Your task to perform on an android device: toggle notifications settings in the gmail app Image 0: 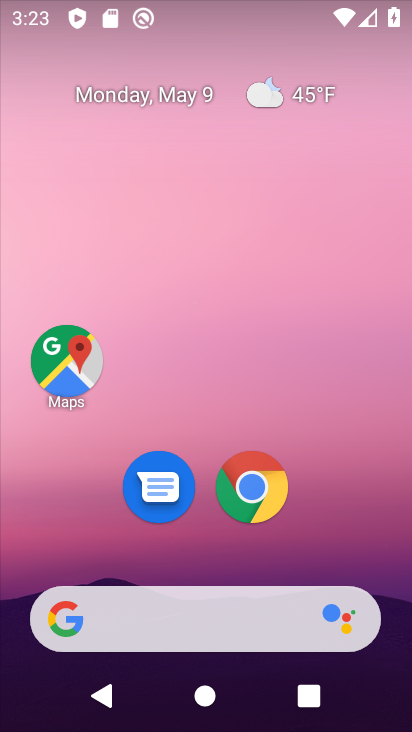
Step 0: drag from (158, 590) to (264, 99)
Your task to perform on an android device: toggle notifications settings in the gmail app Image 1: 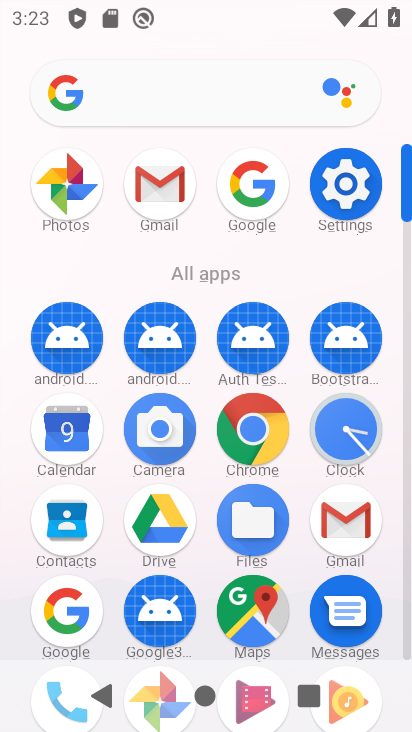
Step 1: click (340, 187)
Your task to perform on an android device: toggle notifications settings in the gmail app Image 2: 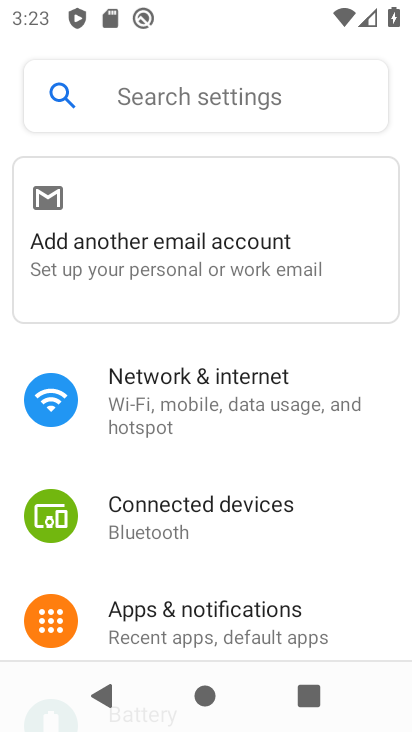
Step 2: click (205, 615)
Your task to perform on an android device: toggle notifications settings in the gmail app Image 3: 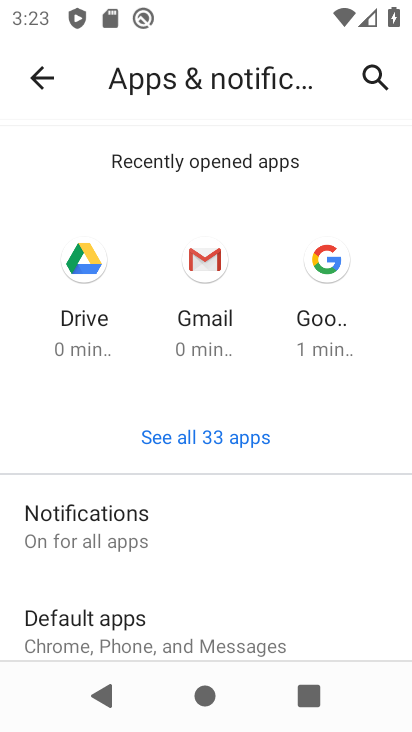
Step 3: press home button
Your task to perform on an android device: toggle notifications settings in the gmail app Image 4: 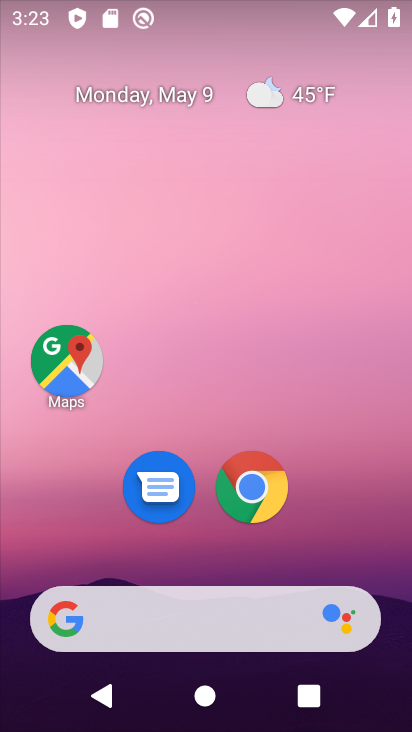
Step 4: drag from (160, 574) to (175, 165)
Your task to perform on an android device: toggle notifications settings in the gmail app Image 5: 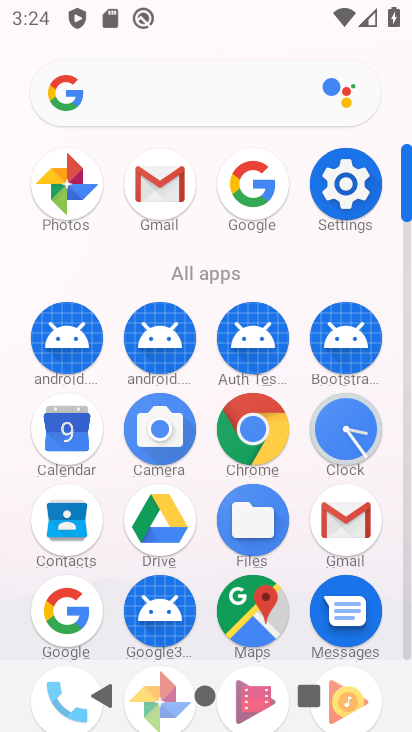
Step 5: click (358, 517)
Your task to perform on an android device: toggle notifications settings in the gmail app Image 6: 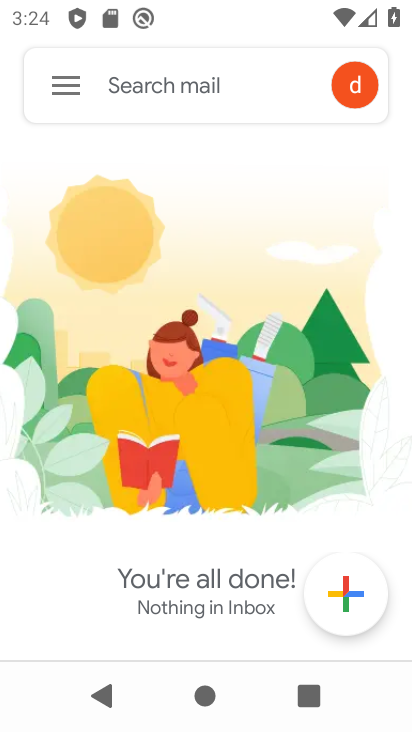
Step 6: click (73, 81)
Your task to perform on an android device: toggle notifications settings in the gmail app Image 7: 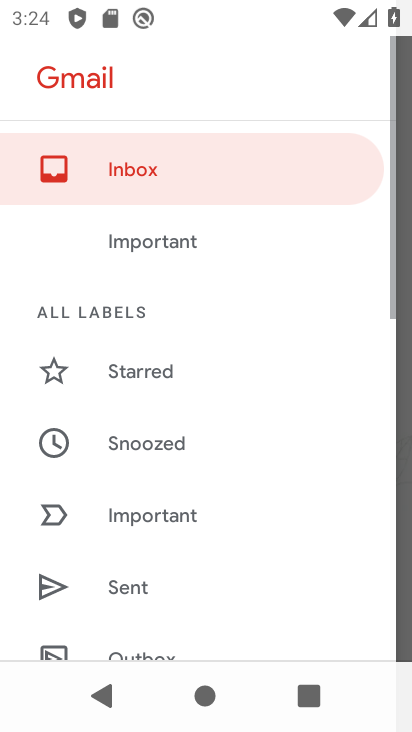
Step 7: drag from (126, 633) to (144, 238)
Your task to perform on an android device: toggle notifications settings in the gmail app Image 8: 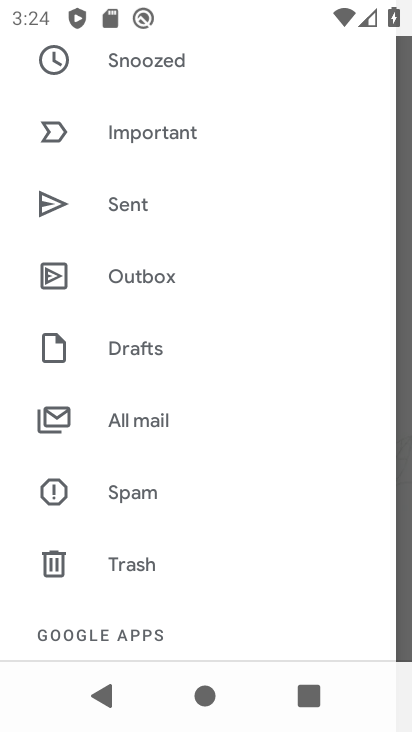
Step 8: drag from (149, 602) to (180, 299)
Your task to perform on an android device: toggle notifications settings in the gmail app Image 9: 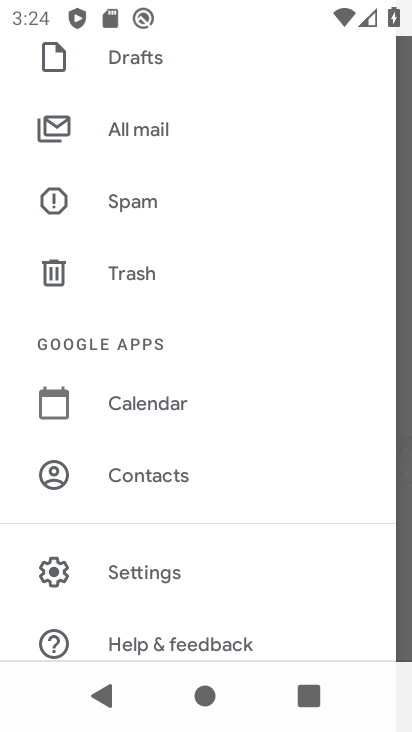
Step 9: click (133, 563)
Your task to perform on an android device: toggle notifications settings in the gmail app Image 10: 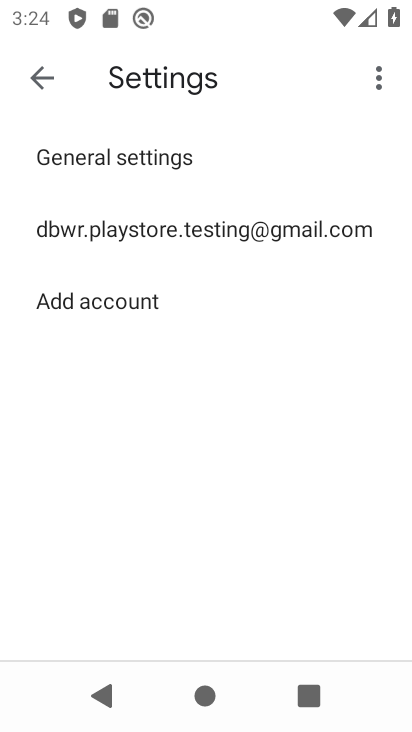
Step 10: click (122, 158)
Your task to perform on an android device: toggle notifications settings in the gmail app Image 11: 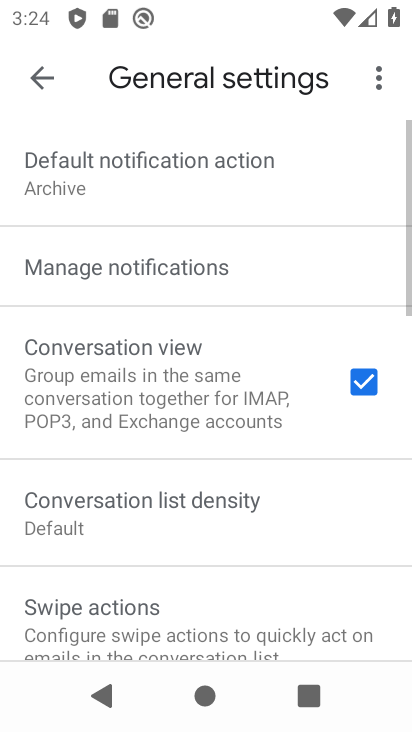
Step 11: click (112, 267)
Your task to perform on an android device: toggle notifications settings in the gmail app Image 12: 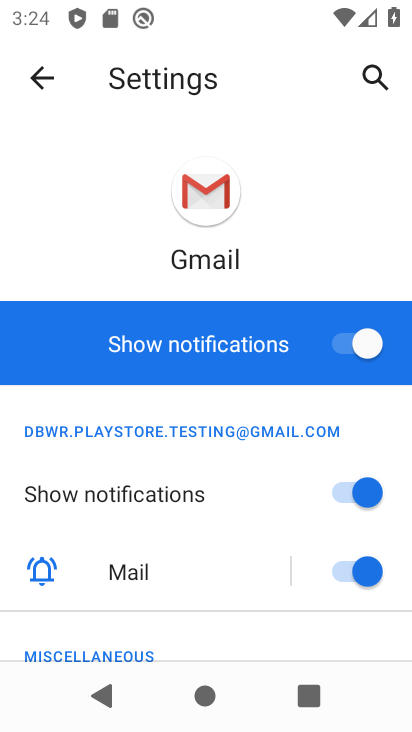
Step 12: click (344, 342)
Your task to perform on an android device: toggle notifications settings in the gmail app Image 13: 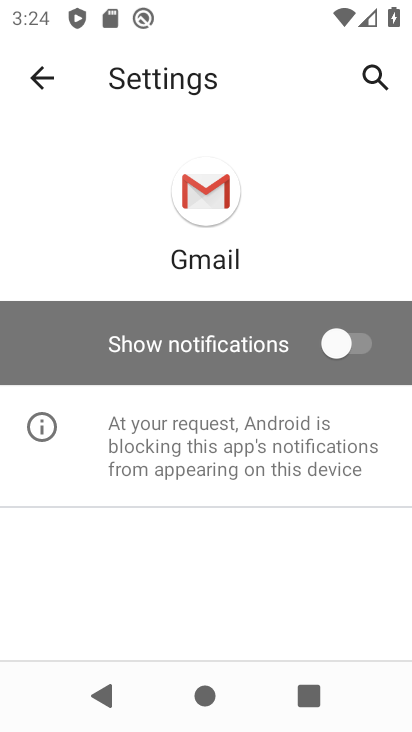
Step 13: task complete